Your task to perform on an android device: See recent photos Image 0: 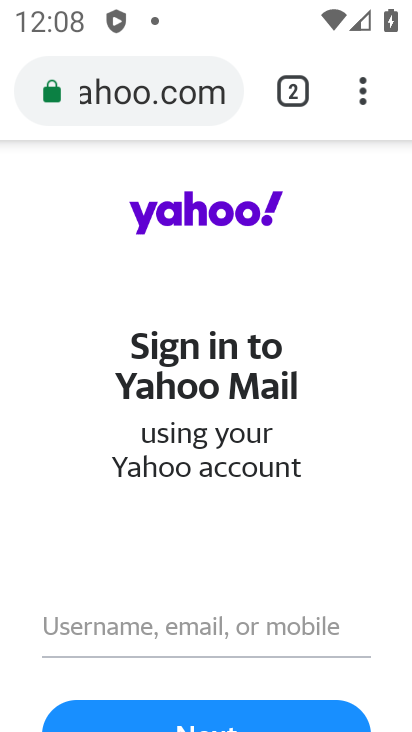
Step 0: press home button
Your task to perform on an android device: See recent photos Image 1: 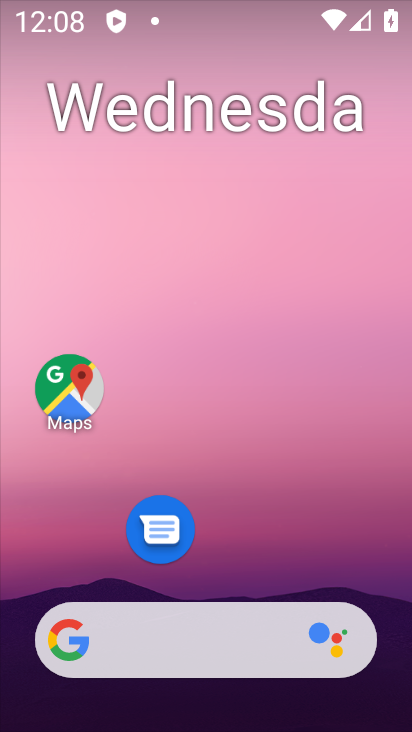
Step 1: drag from (205, 598) to (204, 24)
Your task to perform on an android device: See recent photos Image 2: 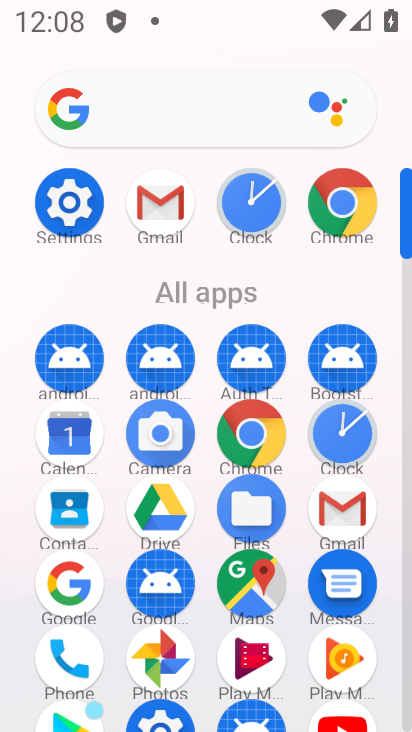
Step 2: click (157, 654)
Your task to perform on an android device: See recent photos Image 3: 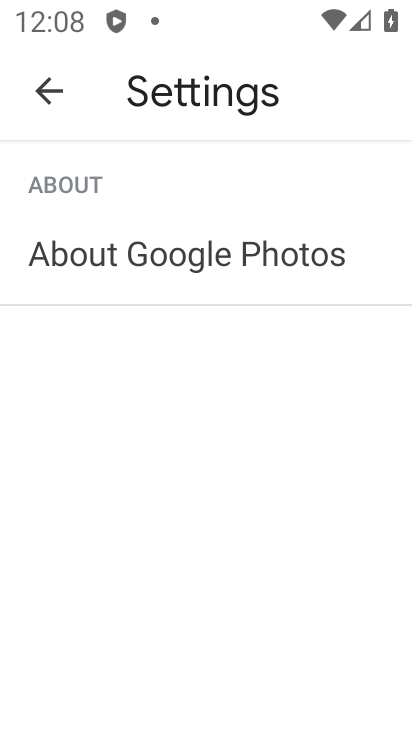
Step 3: click (45, 78)
Your task to perform on an android device: See recent photos Image 4: 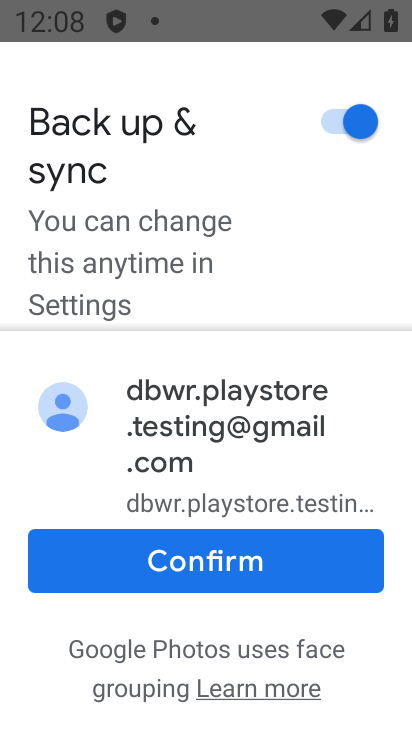
Step 4: click (295, 562)
Your task to perform on an android device: See recent photos Image 5: 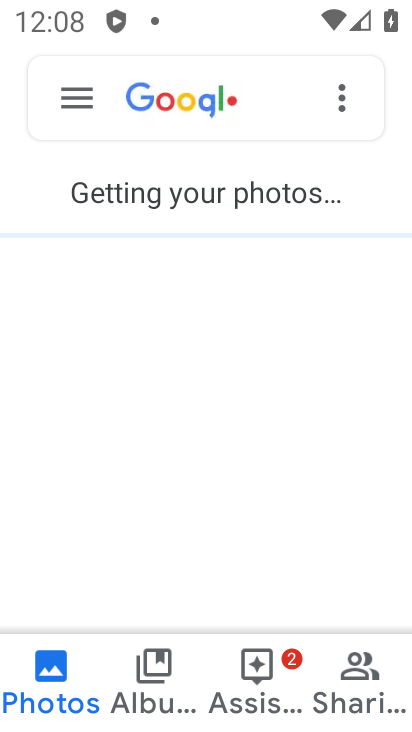
Step 5: task complete